Your task to perform on an android device: See recent photos Image 0: 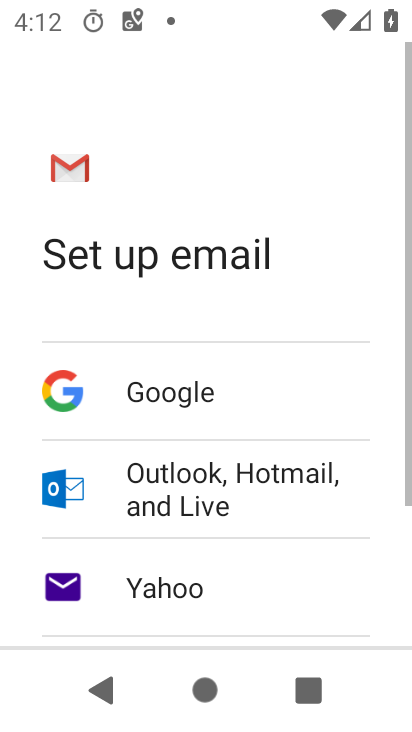
Step 0: press home button
Your task to perform on an android device: See recent photos Image 1: 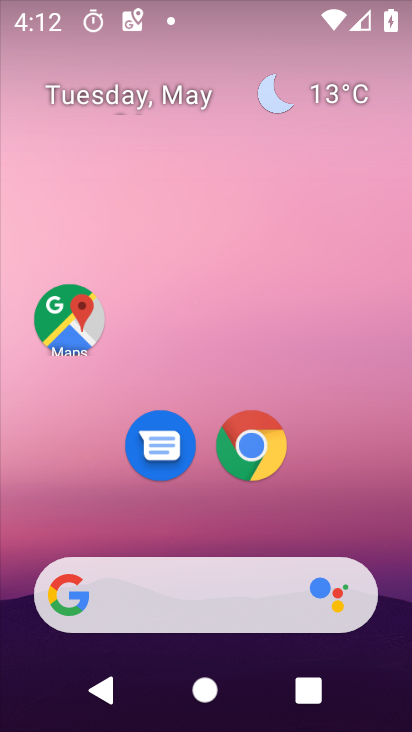
Step 1: drag from (202, 531) to (206, 55)
Your task to perform on an android device: See recent photos Image 2: 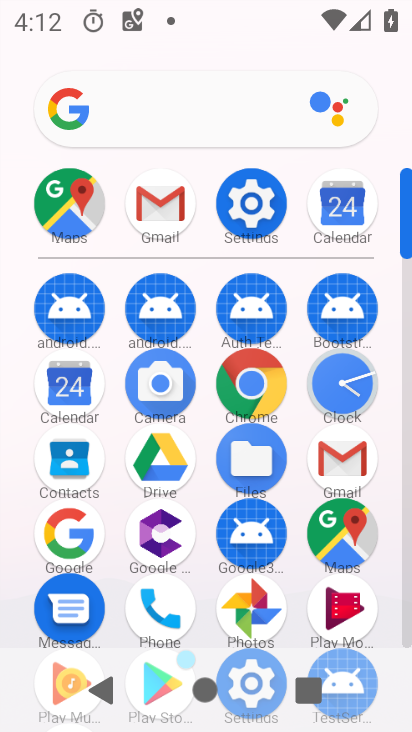
Step 2: click (245, 597)
Your task to perform on an android device: See recent photos Image 3: 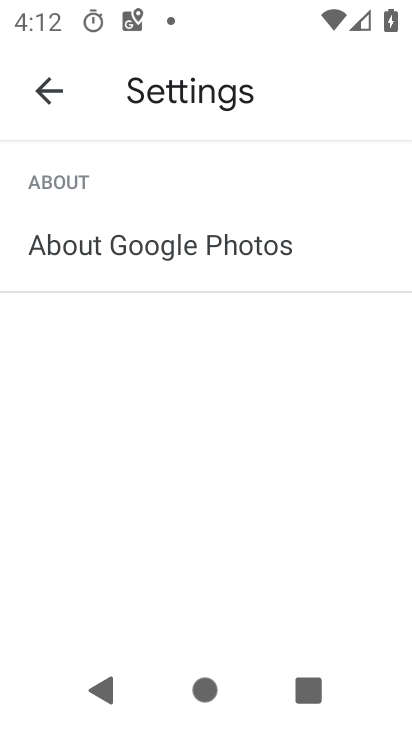
Step 3: click (56, 87)
Your task to perform on an android device: See recent photos Image 4: 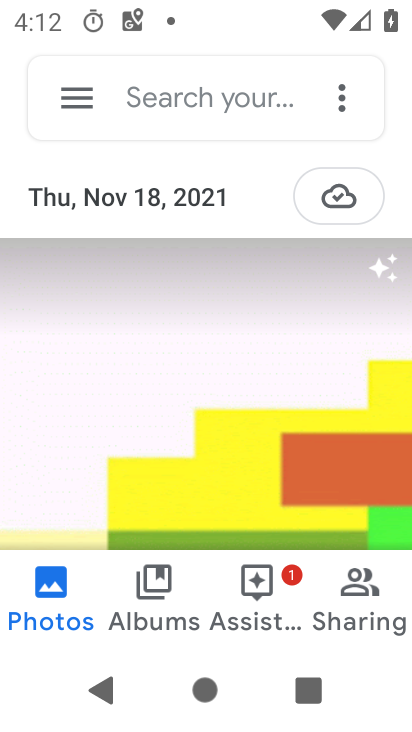
Step 4: task complete